Your task to perform on an android device: delete location history Image 0: 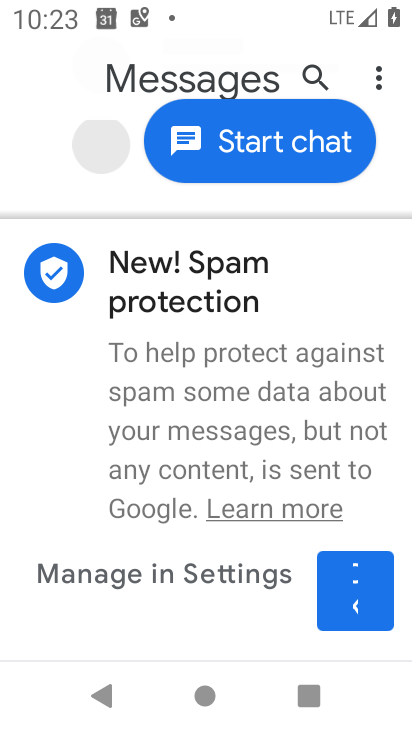
Step 0: press back button
Your task to perform on an android device: delete location history Image 1: 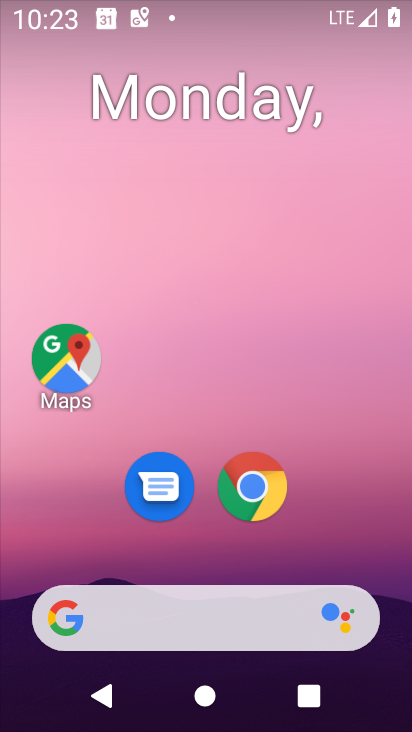
Step 1: drag from (319, 546) to (222, 1)
Your task to perform on an android device: delete location history Image 2: 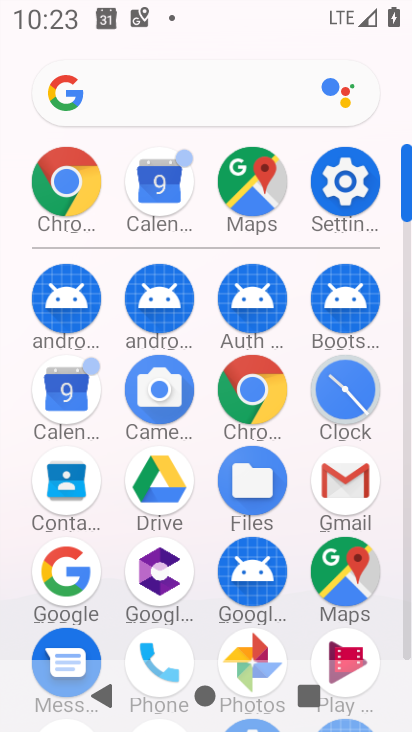
Step 2: drag from (4, 533) to (15, 251)
Your task to perform on an android device: delete location history Image 3: 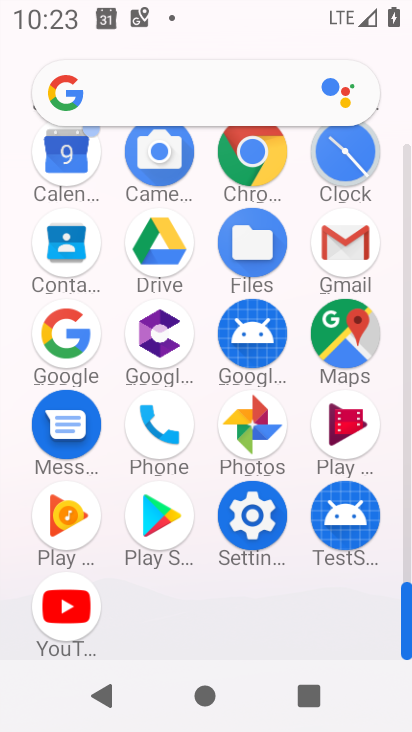
Step 3: drag from (19, 501) to (10, 149)
Your task to perform on an android device: delete location history Image 4: 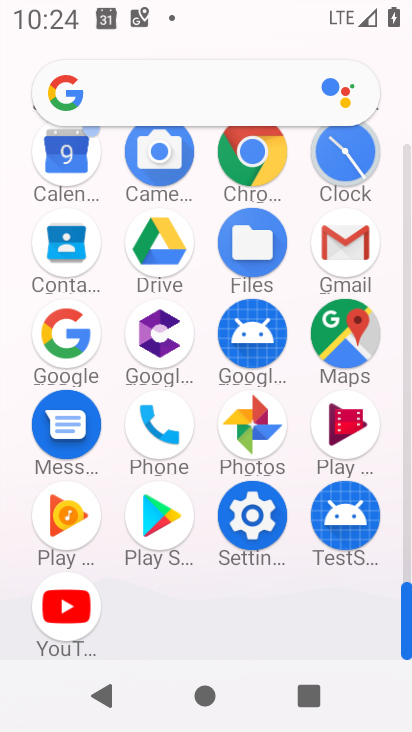
Step 4: click (248, 511)
Your task to perform on an android device: delete location history Image 5: 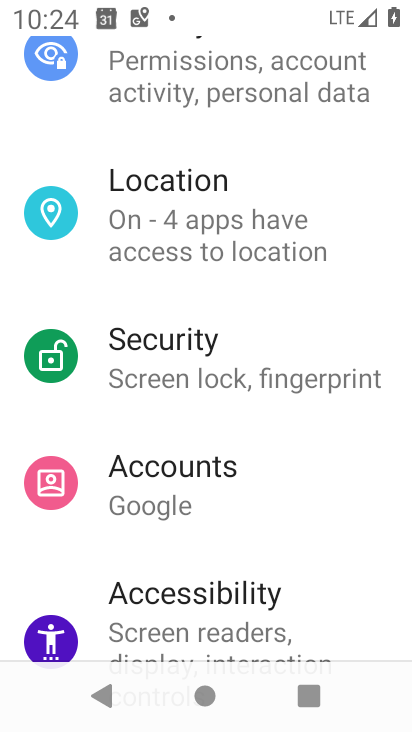
Step 5: click (227, 197)
Your task to perform on an android device: delete location history Image 6: 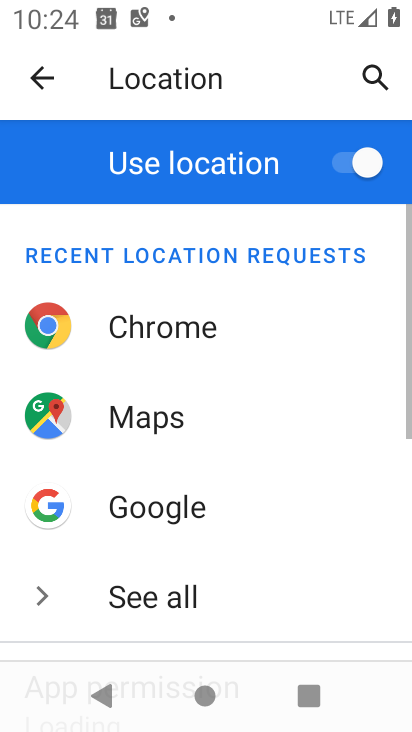
Step 6: drag from (196, 587) to (212, 101)
Your task to perform on an android device: delete location history Image 7: 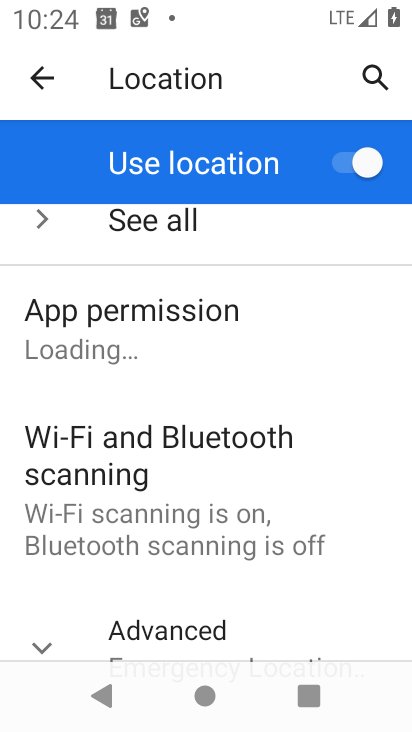
Step 7: drag from (151, 584) to (220, 183)
Your task to perform on an android device: delete location history Image 8: 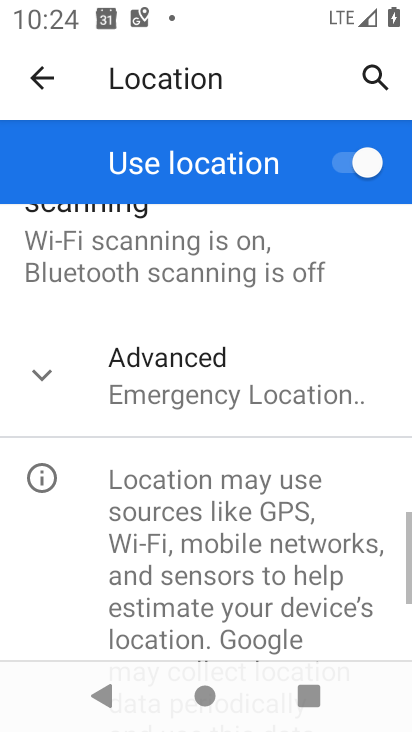
Step 8: click (143, 394)
Your task to perform on an android device: delete location history Image 9: 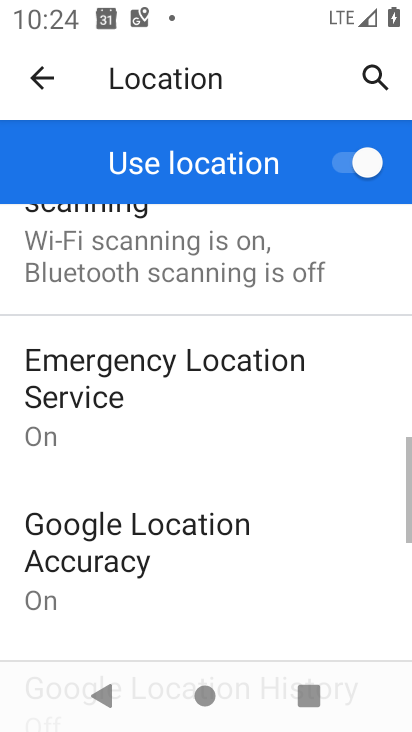
Step 9: drag from (210, 611) to (228, 195)
Your task to perform on an android device: delete location history Image 10: 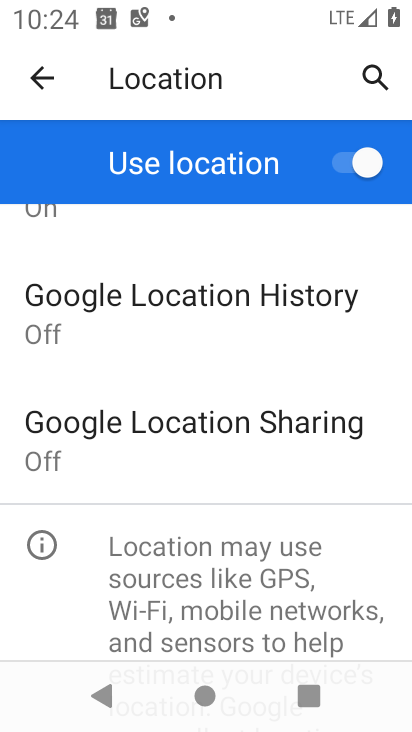
Step 10: click (193, 290)
Your task to perform on an android device: delete location history Image 11: 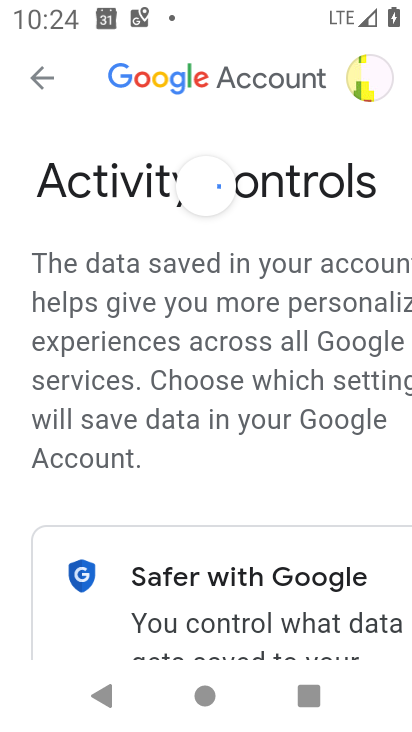
Step 11: drag from (185, 559) to (139, 81)
Your task to perform on an android device: delete location history Image 12: 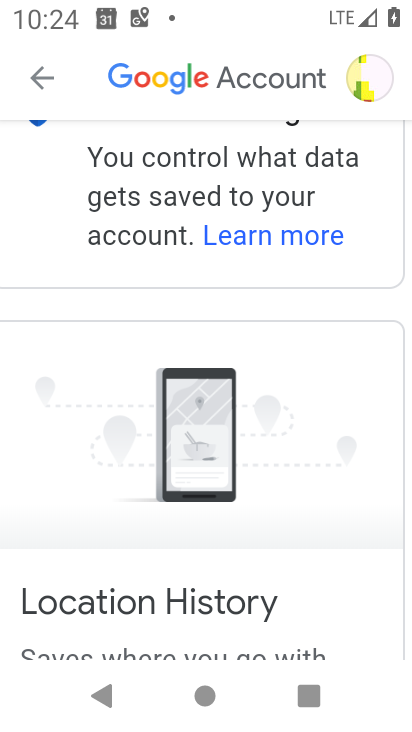
Step 12: drag from (131, 507) to (165, 139)
Your task to perform on an android device: delete location history Image 13: 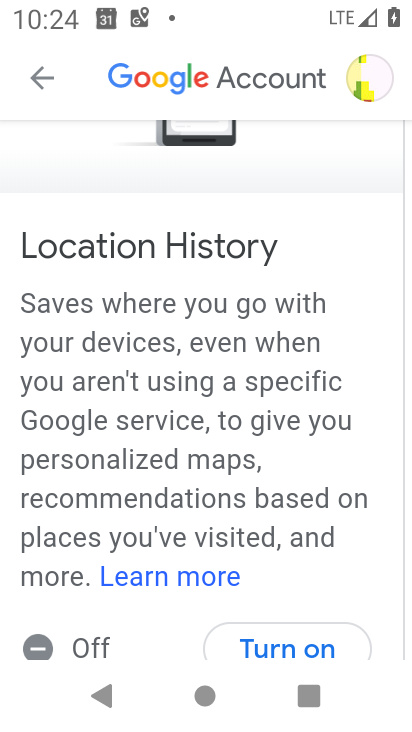
Step 13: drag from (161, 483) to (191, 148)
Your task to perform on an android device: delete location history Image 14: 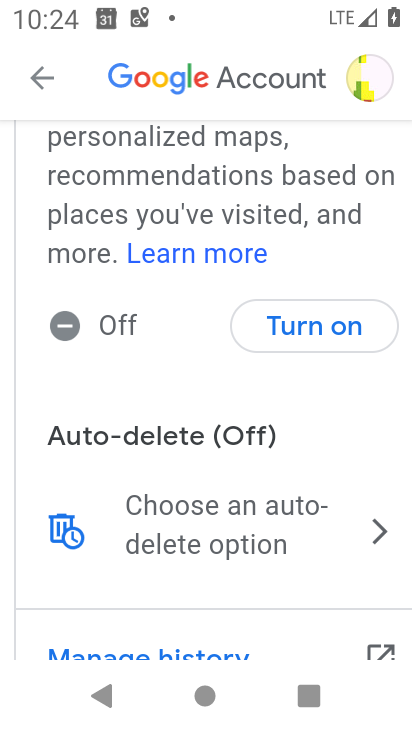
Step 14: click (116, 536)
Your task to perform on an android device: delete location history Image 15: 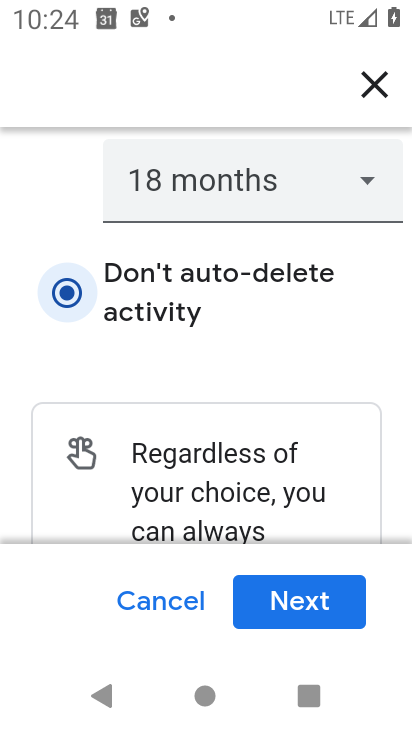
Step 15: drag from (211, 494) to (227, 92)
Your task to perform on an android device: delete location history Image 16: 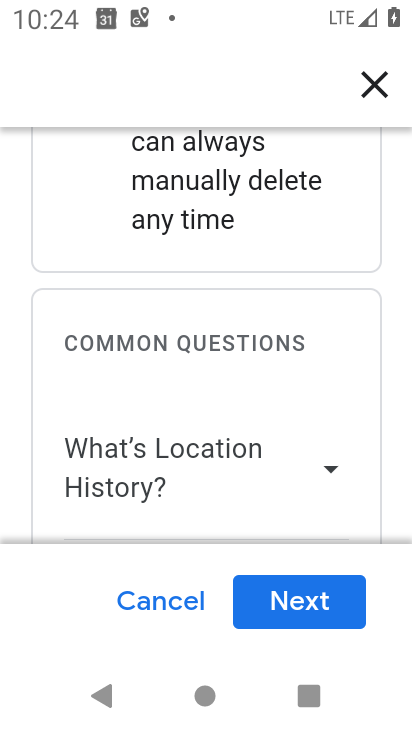
Step 16: drag from (185, 512) to (214, 106)
Your task to perform on an android device: delete location history Image 17: 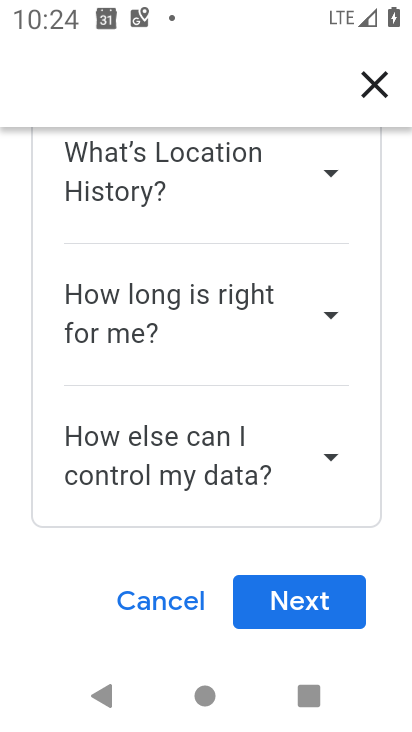
Step 17: drag from (210, 470) to (209, 124)
Your task to perform on an android device: delete location history Image 18: 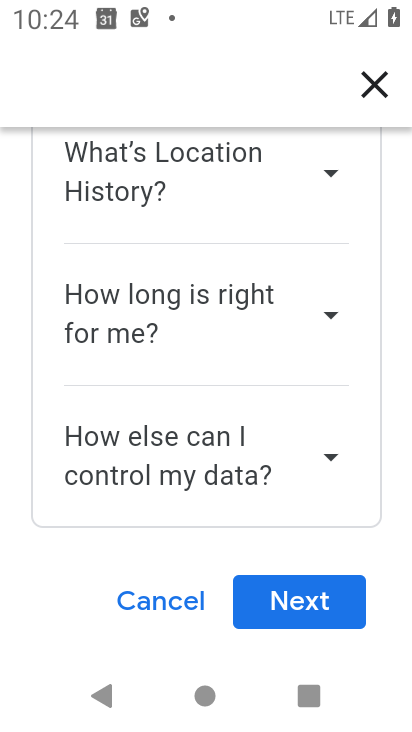
Step 18: click (283, 586)
Your task to perform on an android device: delete location history Image 19: 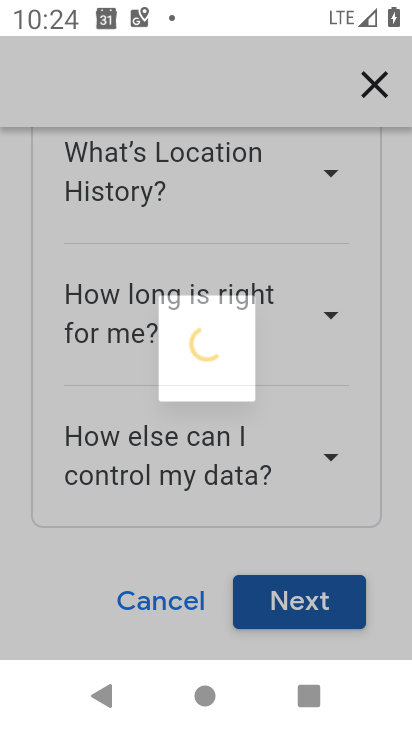
Step 19: click (300, 601)
Your task to perform on an android device: delete location history Image 20: 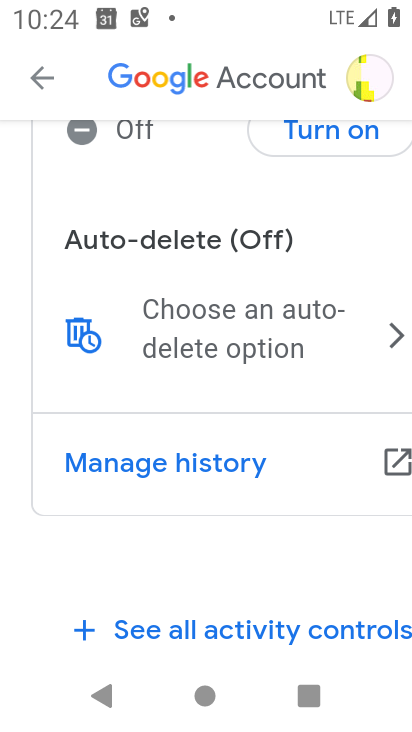
Step 20: task complete